Your task to perform on an android device: see sites visited before in the chrome app Image 0: 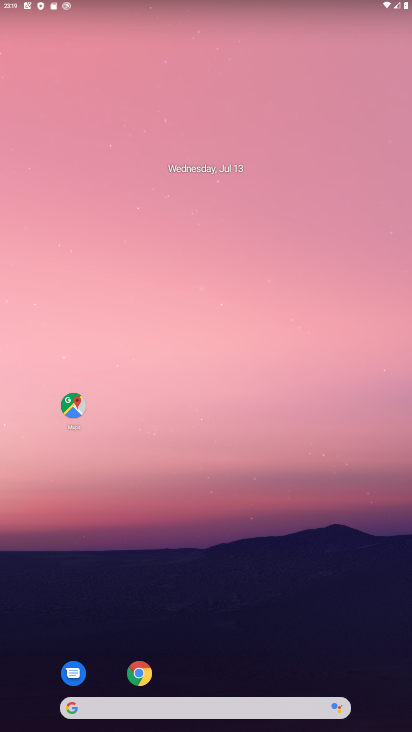
Step 0: click (143, 673)
Your task to perform on an android device: see sites visited before in the chrome app Image 1: 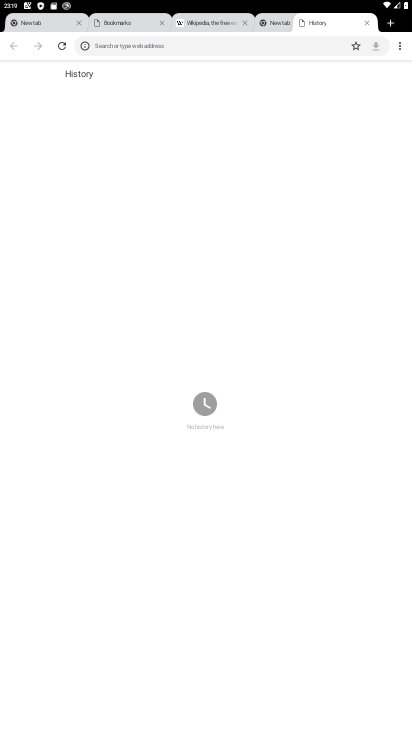
Step 1: click (402, 45)
Your task to perform on an android device: see sites visited before in the chrome app Image 2: 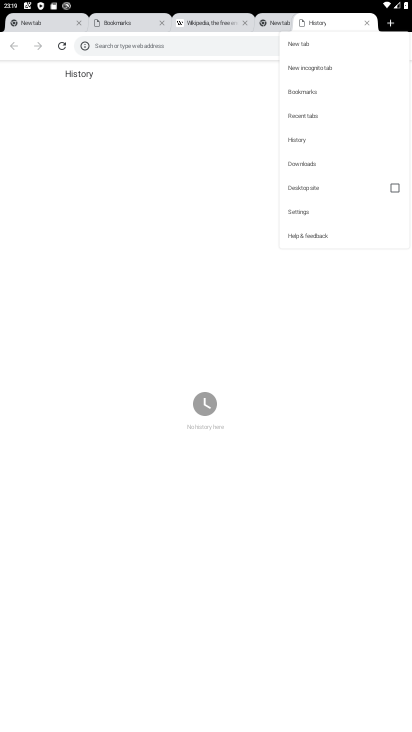
Step 2: click (328, 118)
Your task to perform on an android device: see sites visited before in the chrome app Image 3: 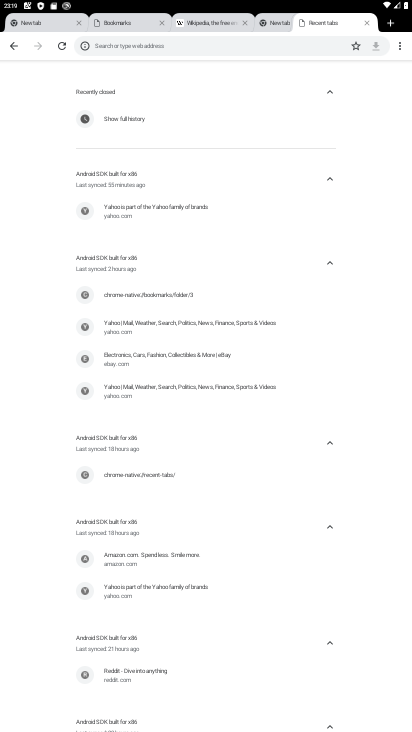
Step 3: task complete